Your task to perform on an android device: Go to internet settings Image 0: 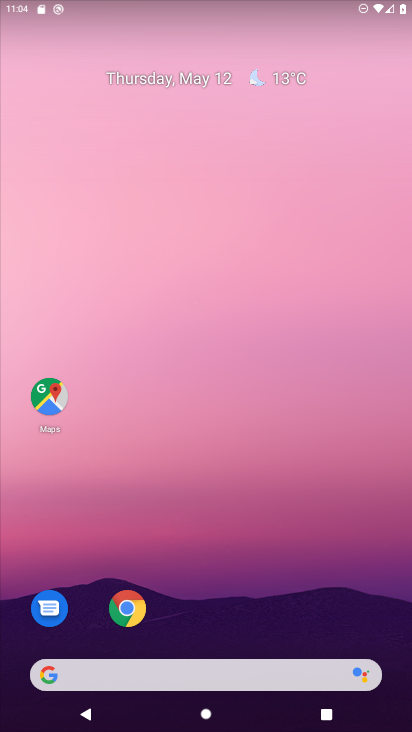
Step 0: drag from (214, 606) to (205, 76)
Your task to perform on an android device: Go to internet settings Image 1: 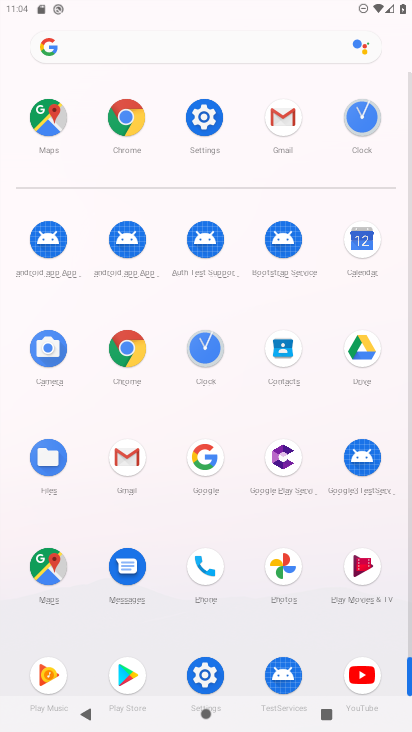
Step 1: click (202, 124)
Your task to perform on an android device: Go to internet settings Image 2: 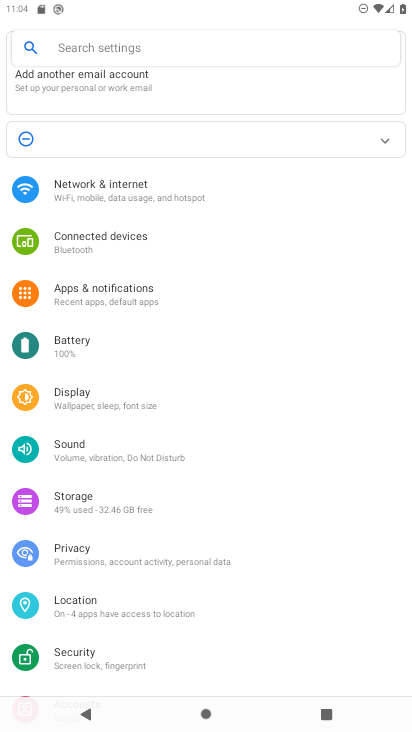
Step 2: click (110, 216)
Your task to perform on an android device: Go to internet settings Image 3: 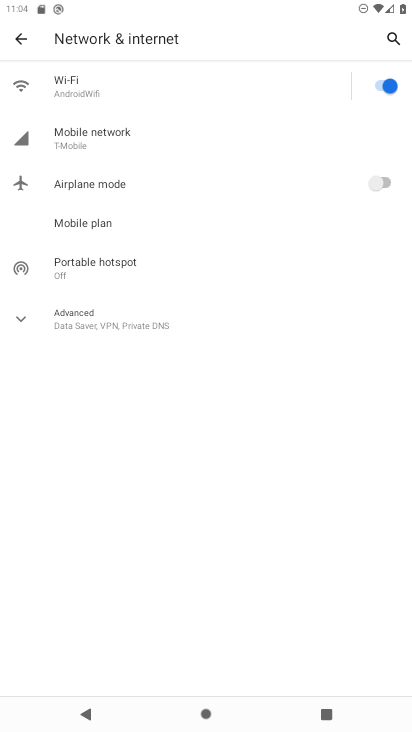
Step 3: click (103, 92)
Your task to perform on an android device: Go to internet settings Image 4: 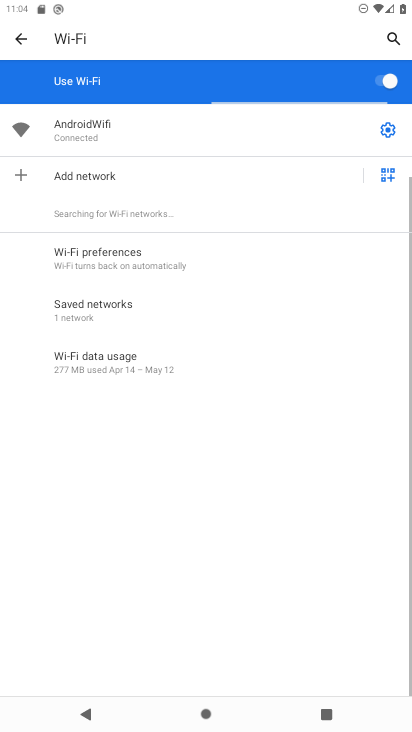
Step 4: click (385, 124)
Your task to perform on an android device: Go to internet settings Image 5: 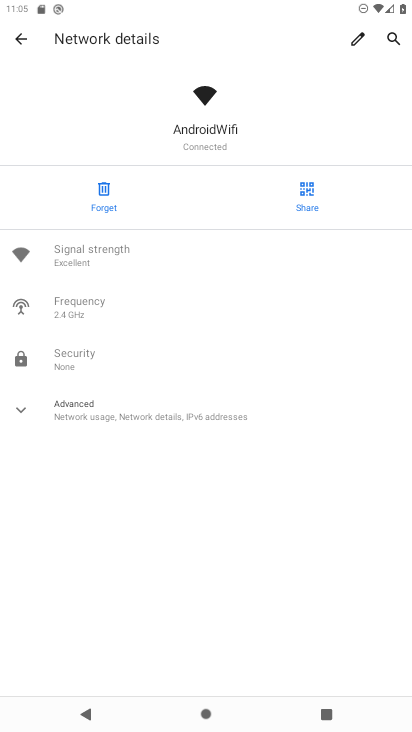
Step 5: task complete